Your task to perform on an android device: change the clock display to show seconds Image 0: 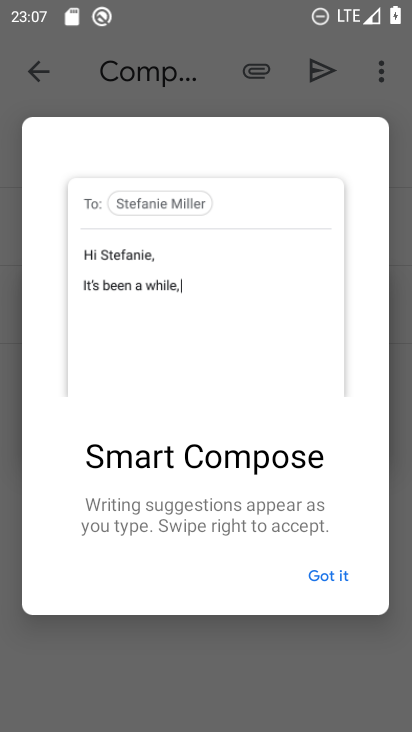
Step 0: press home button
Your task to perform on an android device: change the clock display to show seconds Image 1: 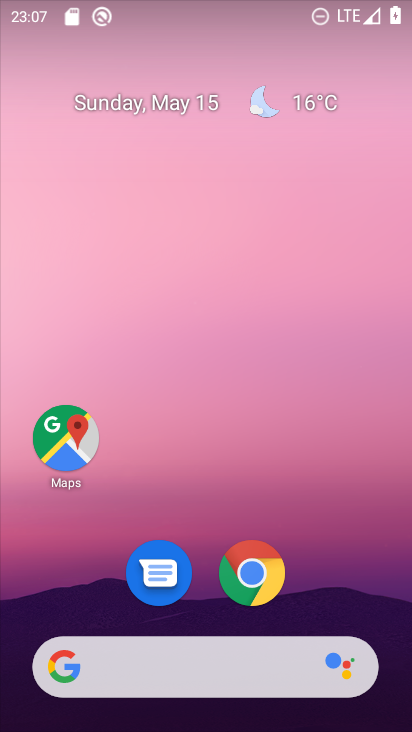
Step 1: drag from (330, 546) to (348, 2)
Your task to perform on an android device: change the clock display to show seconds Image 2: 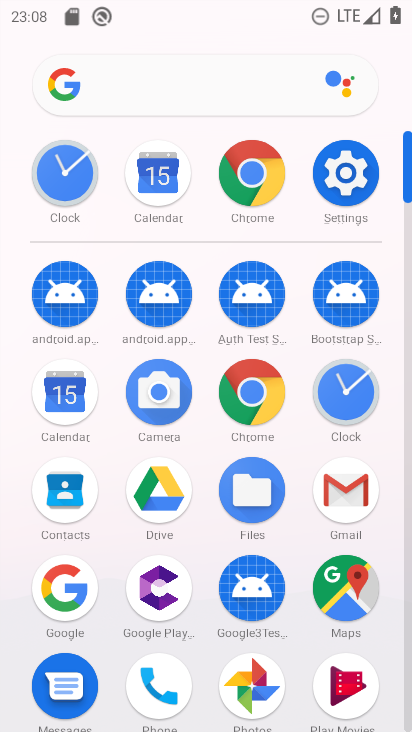
Step 2: click (363, 390)
Your task to perform on an android device: change the clock display to show seconds Image 3: 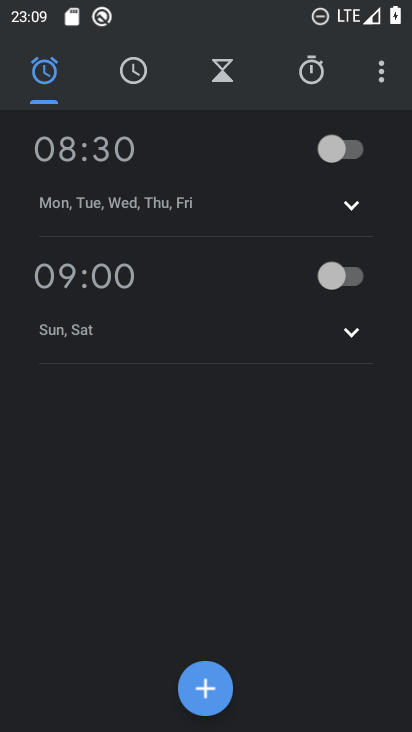
Step 3: click (376, 77)
Your task to perform on an android device: change the clock display to show seconds Image 4: 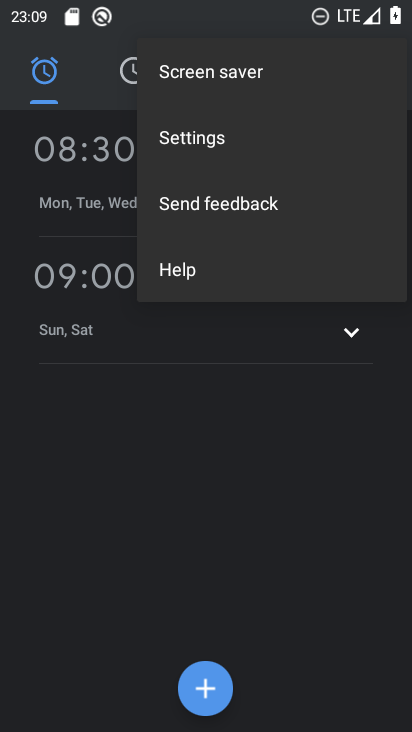
Step 4: click (279, 148)
Your task to perform on an android device: change the clock display to show seconds Image 5: 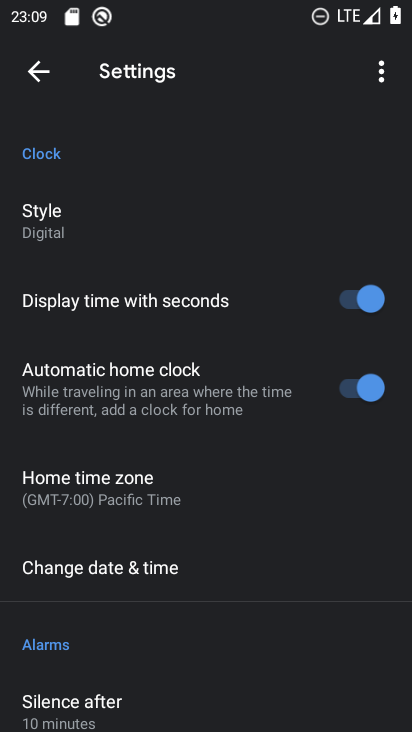
Step 5: task complete